Your task to perform on an android device: allow cookies in the chrome app Image 0: 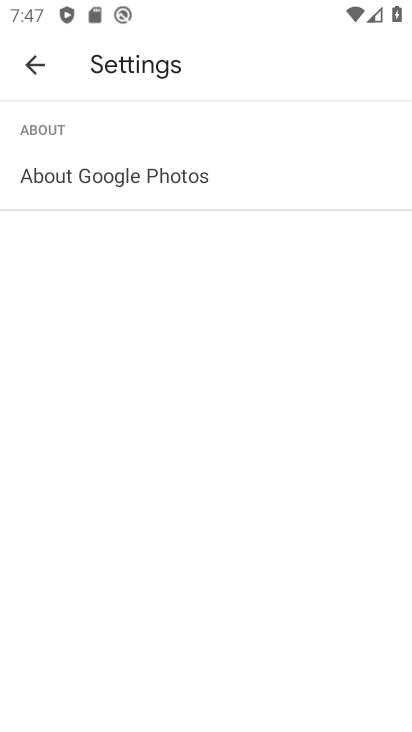
Step 0: press home button
Your task to perform on an android device: allow cookies in the chrome app Image 1: 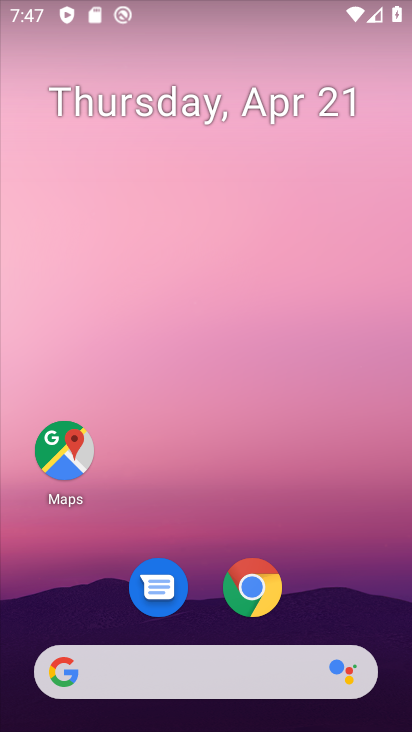
Step 1: drag from (370, 619) to (344, 81)
Your task to perform on an android device: allow cookies in the chrome app Image 2: 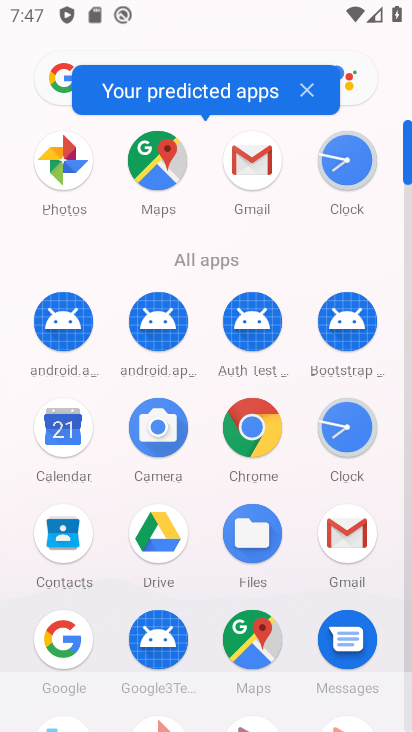
Step 2: click (250, 426)
Your task to perform on an android device: allow cookies in the chrome app Image 3: 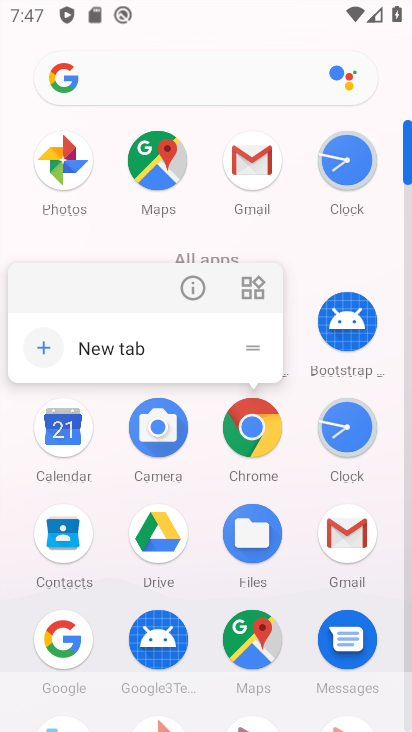
Step 3: click (261, 424)
Your task to perform on an android device: allow cookies in the chrome app Image 4: 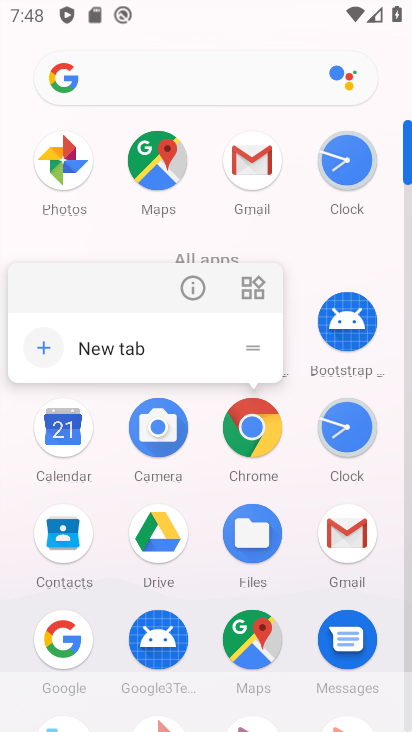
Step 4: click (236, 441)
Your task to perform on an android device: allow cookies in the chrome app Image 5: 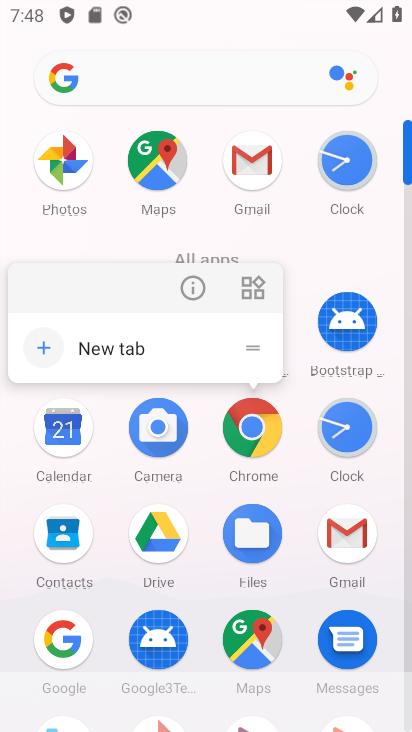
Step 5: click (258, 424)
Your task to perform on an android device: allow cookies in the chrome app Image 6: 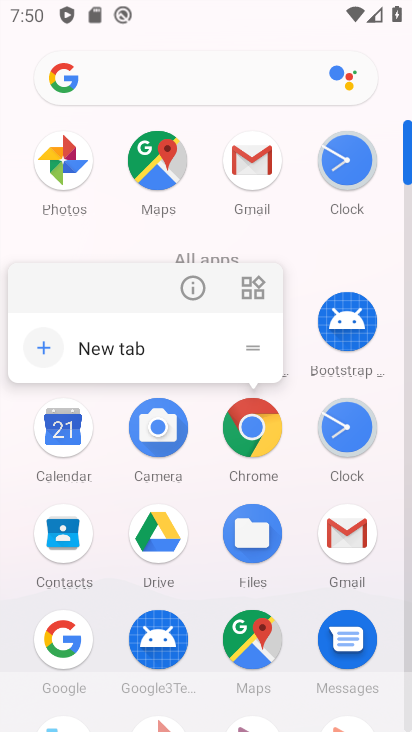
Step 6: click (258, 427)
Your task to perform on an android device: allow cookies in the chrome app Image 7: 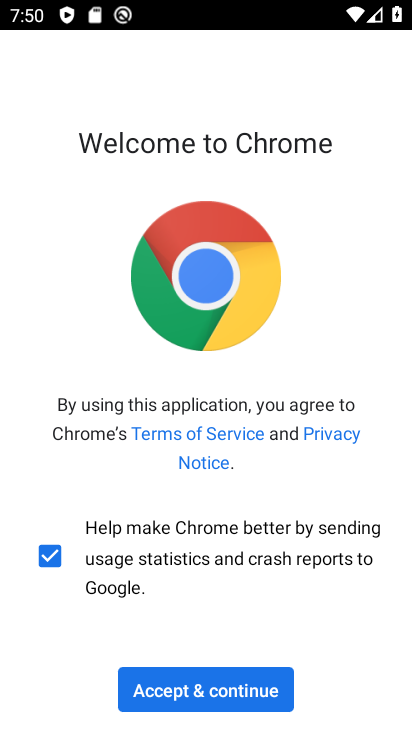
Step 7: click (217, 695)
Your task to perform on an android device: allow cookies in the chrome app Image 8: 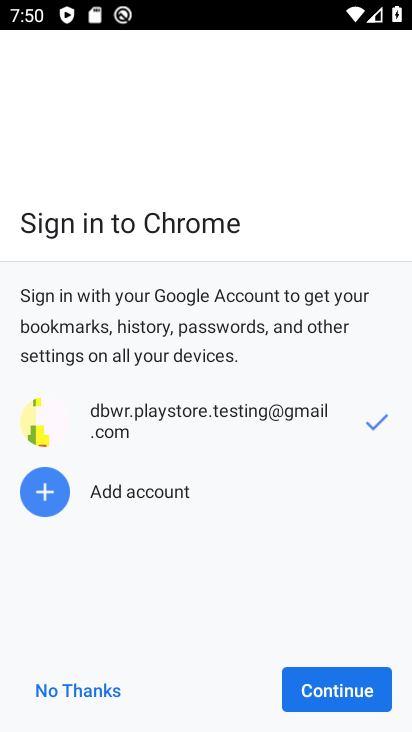
Step 8: click (315, 679)
Your task to perform on an android device: allow cookies in the chrome app Image 9: 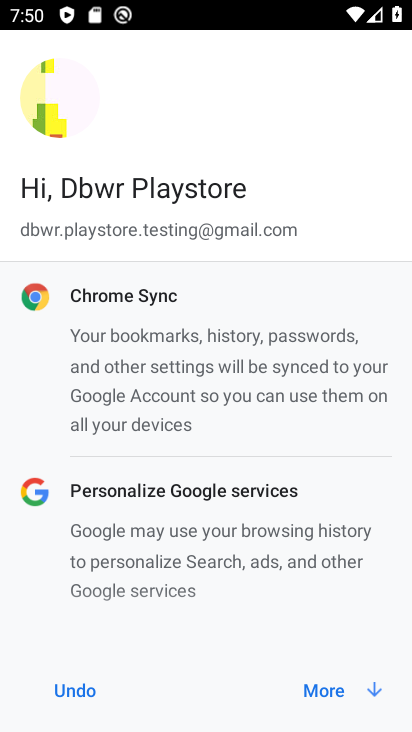
Step 9: click (315, 679)
Your task to perform on an android device: allow cookies in the chrome app Image 10: 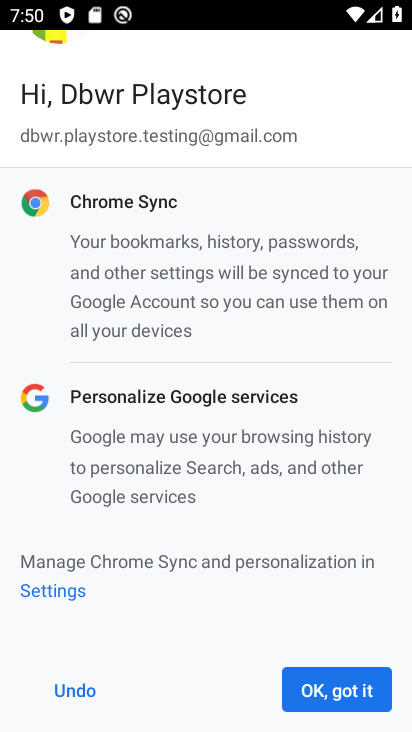
Step 10: click (315, 679)
Your task to perform on an android device: allow cookies in the chrome app Image 11: 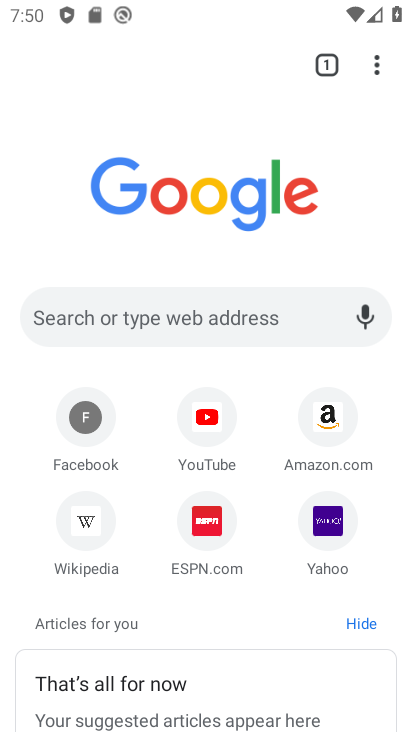
Step 11: drag from (376, 54) to (148, 544)
Your task to perform on an android device: allow cookies in the chrome app Image 12: 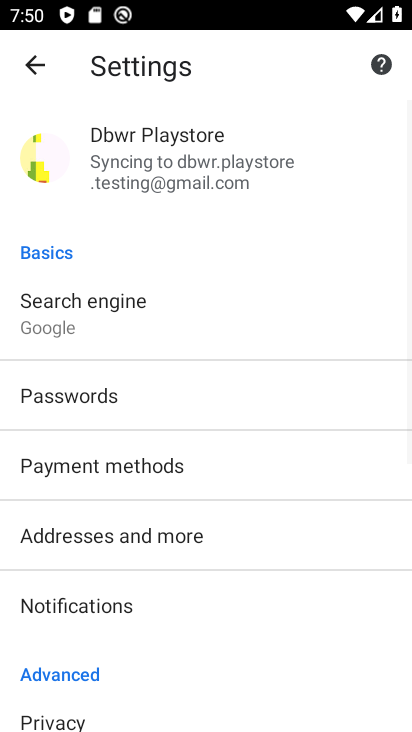
Step 12: drag from (189, 620) to (105, 21)
Your task to perform on an android device: allow cookies in the chrome app Image 13: 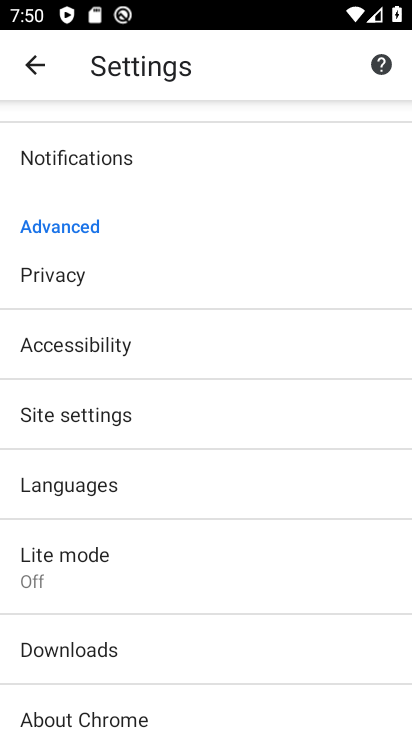
Step 13: click (109, 409)
Your task to perform on an android device: allow cookies in the chrome app Image 14: 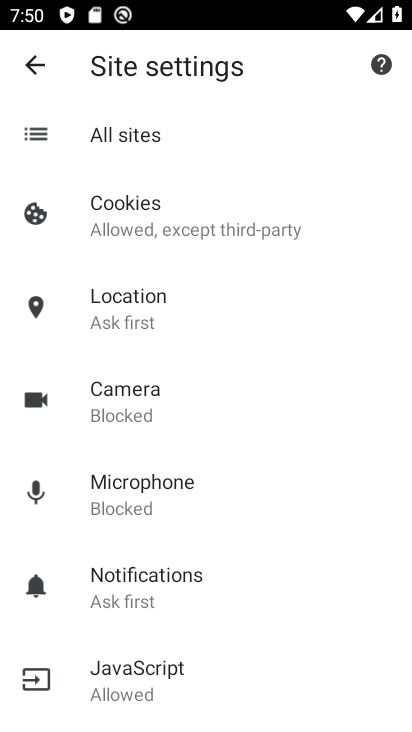
Step 14: click (220, 221)
Your task to perform on an android device: allow cookies in the chrome app Image 15: 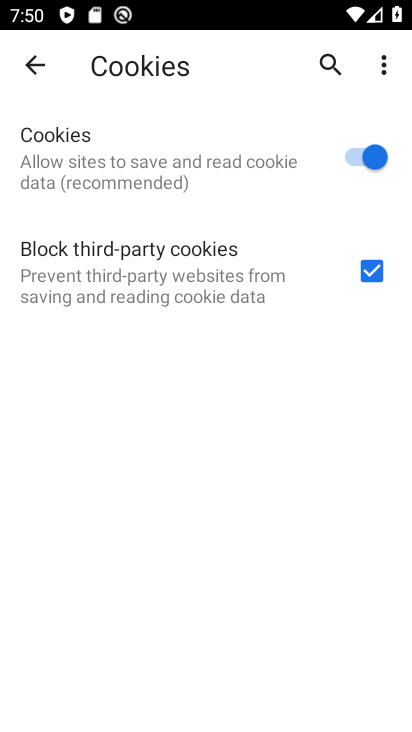
Step 15: task complete